Your task to perform on an android device: turn pop-ups on in chrome Image 0: 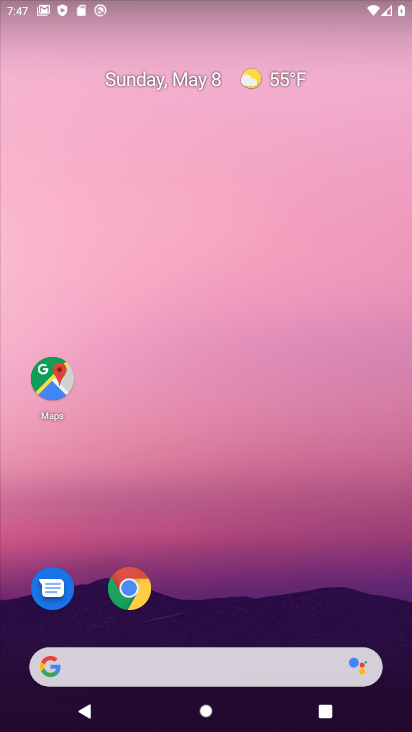
Step 0: drag from (348, 604) to (335, 33)
Your task to perform on an android device: turn pop-ups on in chrome Image 1: 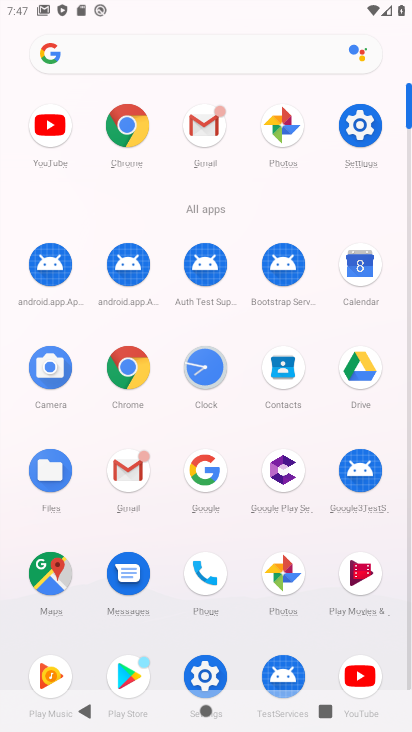
Step 1: click (112, 134)
Your task to perform on an android device: turn pop-ups on in chrome Image 2: 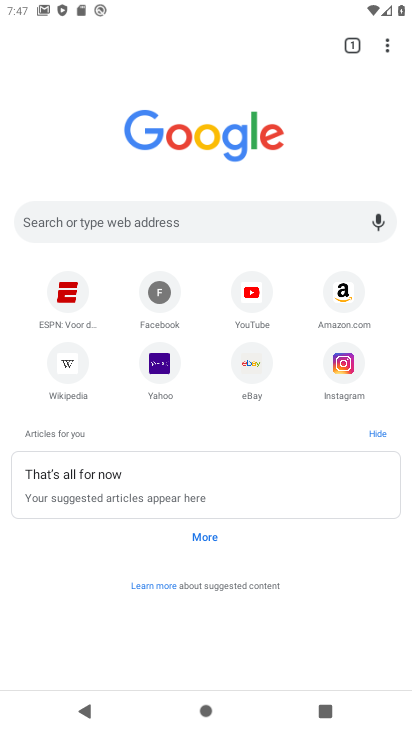
Step 2: click (388, 39)
Your task to perform on an android device: turn pop-ups on in chrome Image 3: 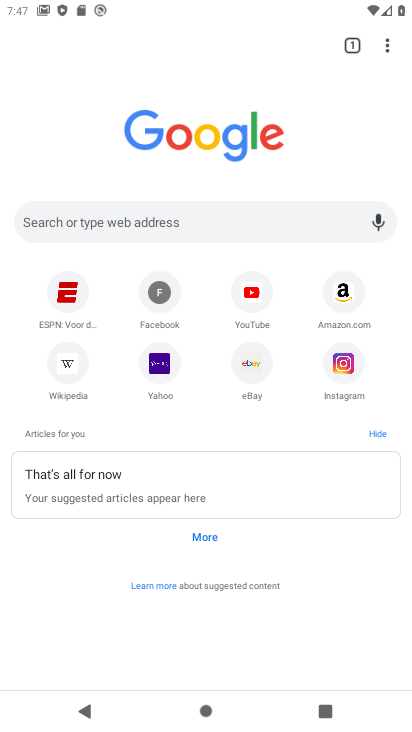
Step 3: click (384, 42)
Your task to perform on an android device: turn pop-ups on in chrome Image 4: 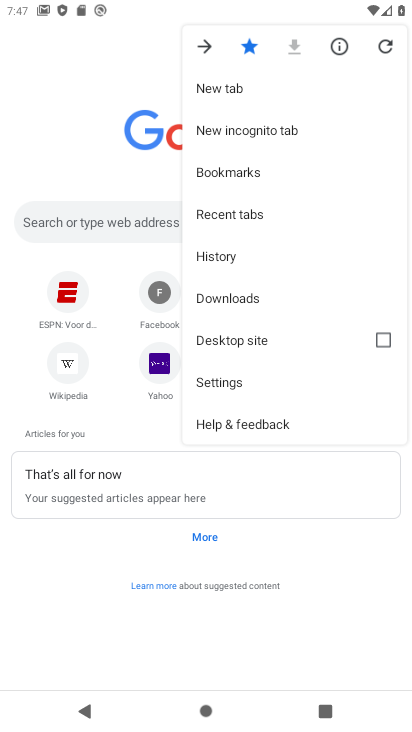
Step 4: click (259, 384)
Your task to perform on an android device: turn pop-ups on in chrome Image 5: 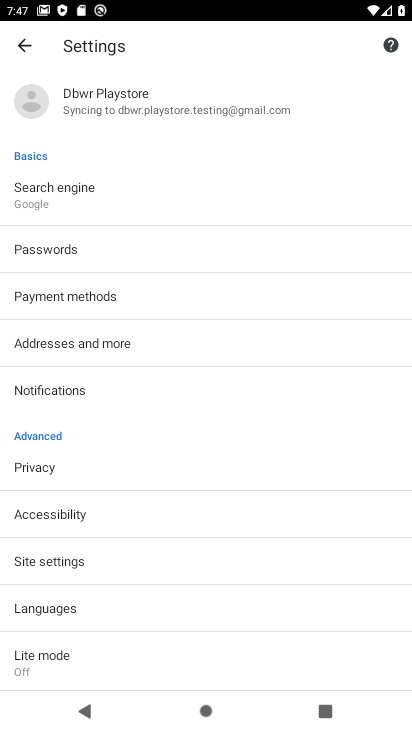
Step 5: click (97, 564)
Your task to perform on an android device: turn pop-ups on in chrome Image 6: 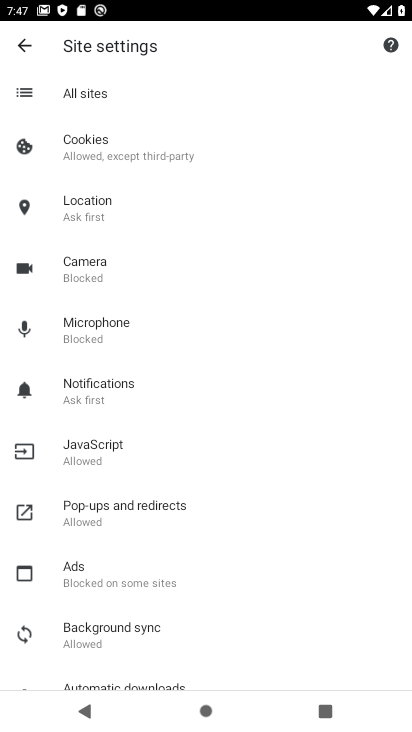
Step 6: click (200, 506)
Your task to perform on an android device: turn pop-ups on in chrome Image 7: 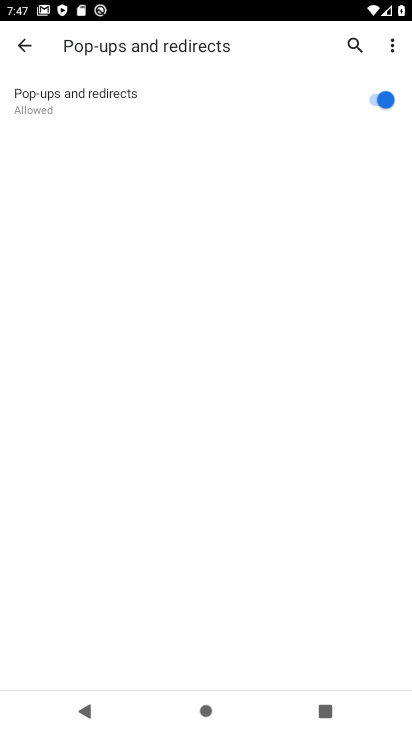
Step 7: task complete